Your task to perform on an android device: Open calendar and show me the second week of next month Image 0: 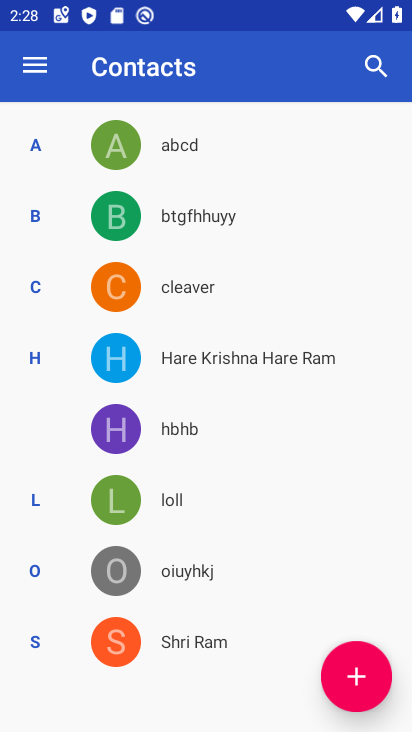
Step 0: press home button
Your task to perform on an android device: Open calendar and show me the second week of next month Image 1: 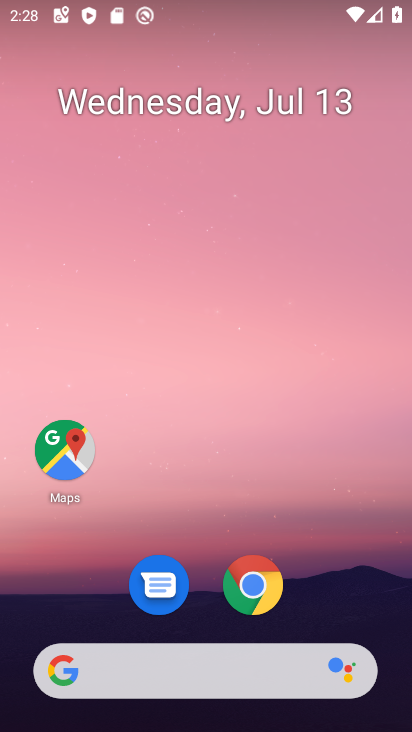
Step 1: drag from (174, 675) to (329, 107)
Your task to perform on an android device: Open calendar and show me the second week of next month Image 2: 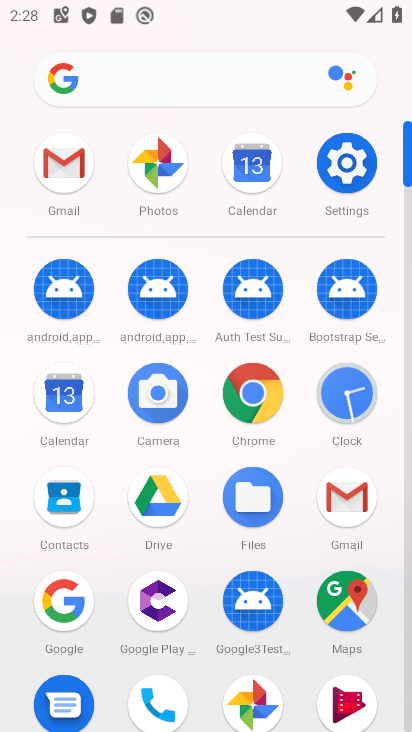
Step 2: click (75, 392)
Your task to perform on an android device: Open calendar and show me the second week of next month Image 3: 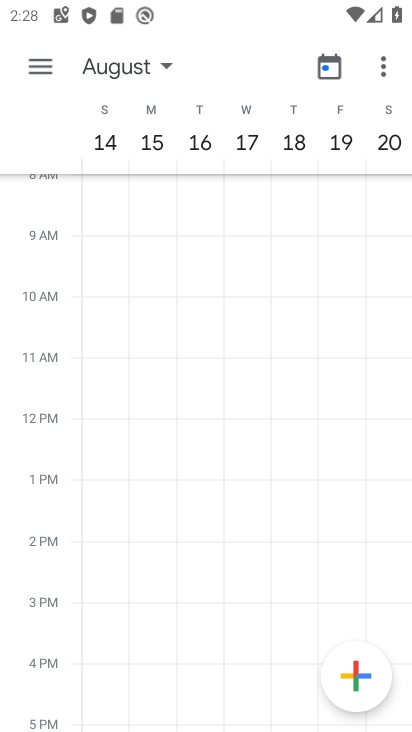
Step 3: click (114, 67)
Your task to perform on an android device: Open calendar and show me the second week of next month Image 4: 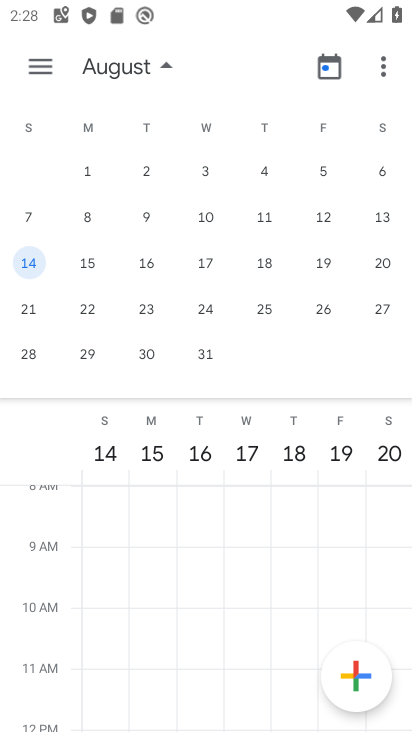
Step 4: click (34, 219)
Your task to perform on an android device: Open calendar and show me the second week of next month Image 5: 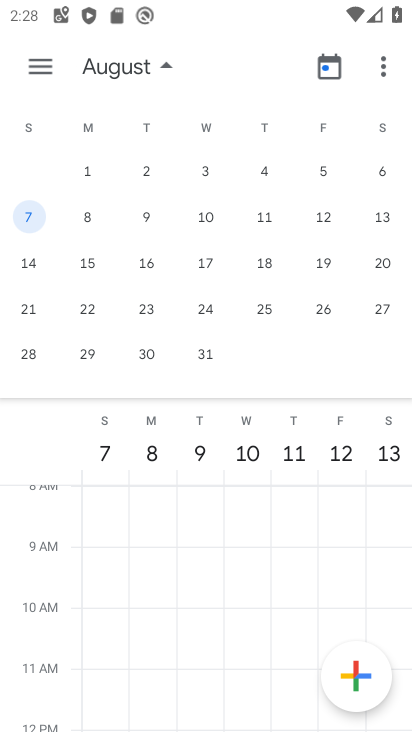
Step 5: click (35, 66)
Your task to perform on an android device: Open calendar and show me the second week of next month Image 6: 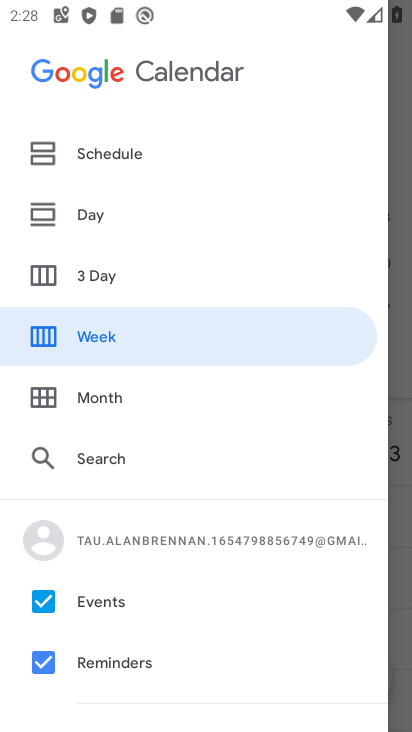
Step 6: click (103, 340)
Your task to perform on an android device: Open calendar and show me the second week of next month Image 7: 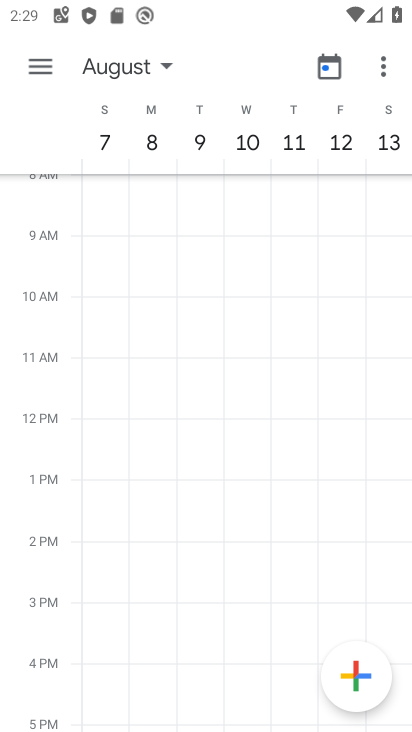
Step 7: task complete